Your task to perform on an android device: visit the assistant section in the google photos Image 0: 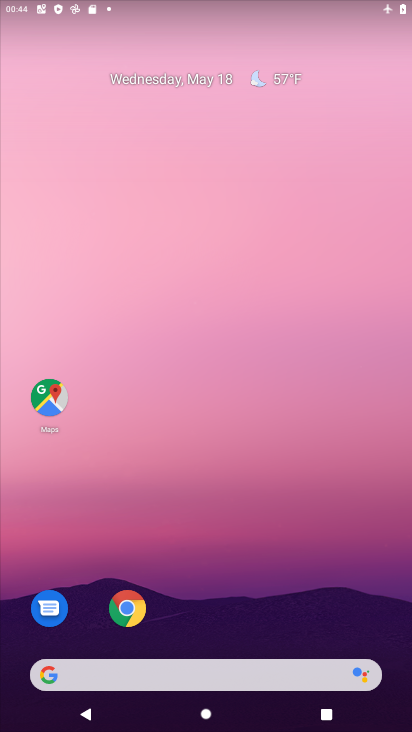
Step 0: drag from (232, 528) to (171, 140)
Your task to perform on an android device: visit the assistant section in the google photos Image 1: 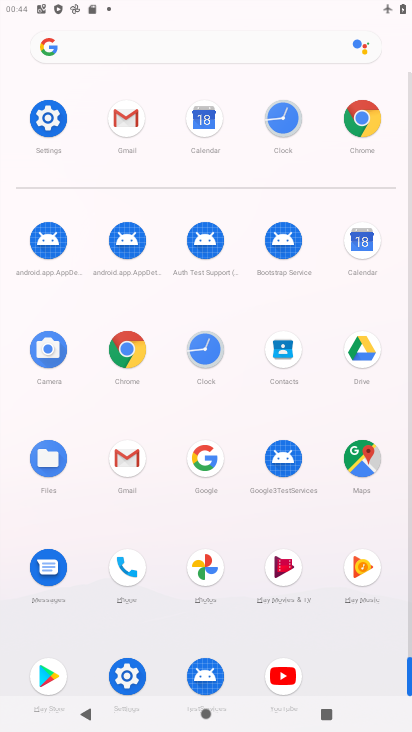
Step 1: click (207, 561)
Your task to perform on an android device: visit the assistant section in the google photos Image 2: 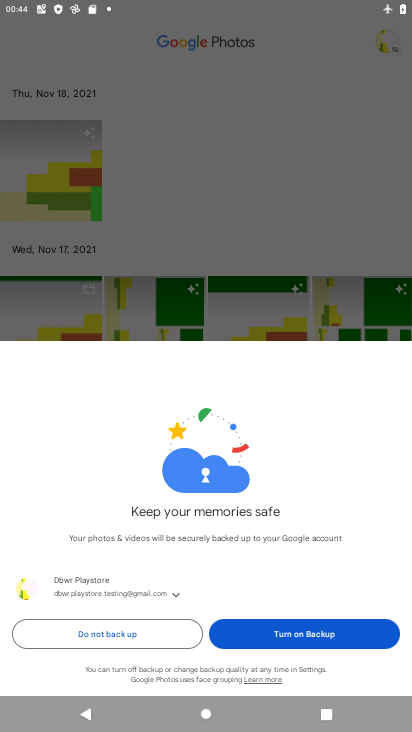
Step 2: click (212, 204)
Your task to perform on an android device: visit the assistant section in the google photos Image 3: 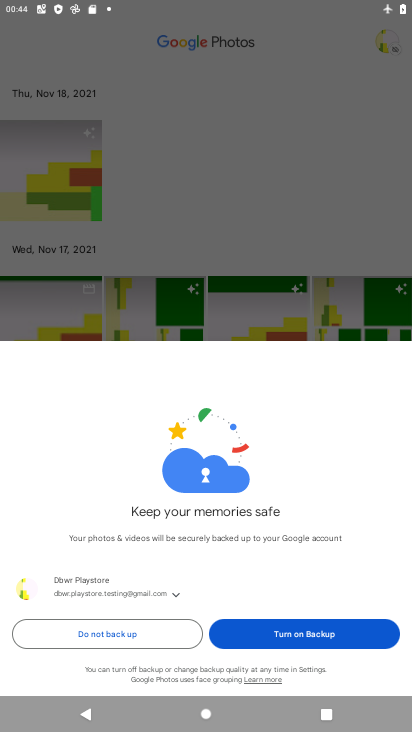
Step 3: click (99, 633)
Your task to perform on an android device: visit the assistant section in the google photos Image 4: 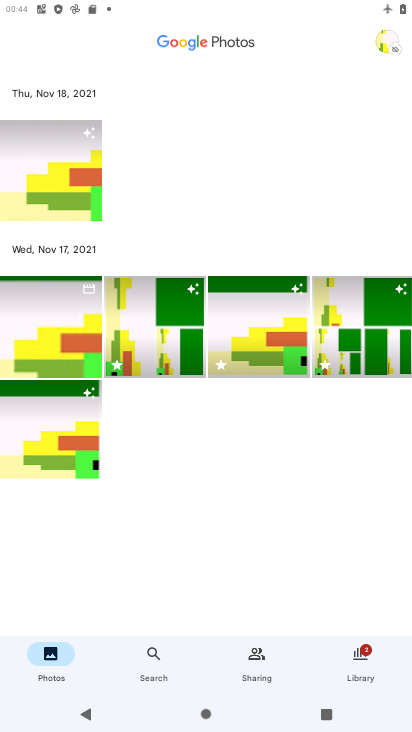
Step 4: click (148, 655)
Your task to perform on an android device: visit the assistant section in the google photos Image 5: 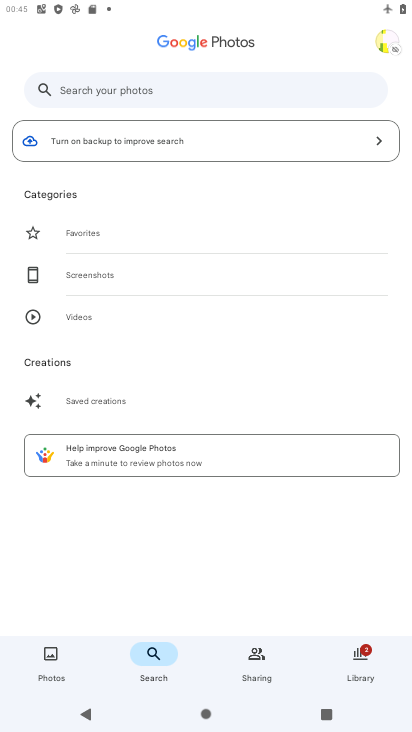
Step 5: click (69, 405)
Your task to perform on an android device: visit the assistant section in the google photos Image 6: 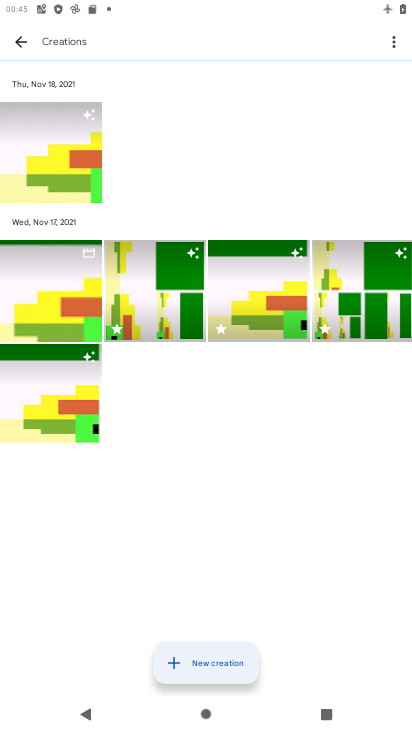
Step 6: task complete